Your task to perform on an android device: What's the weather today? Image 0: 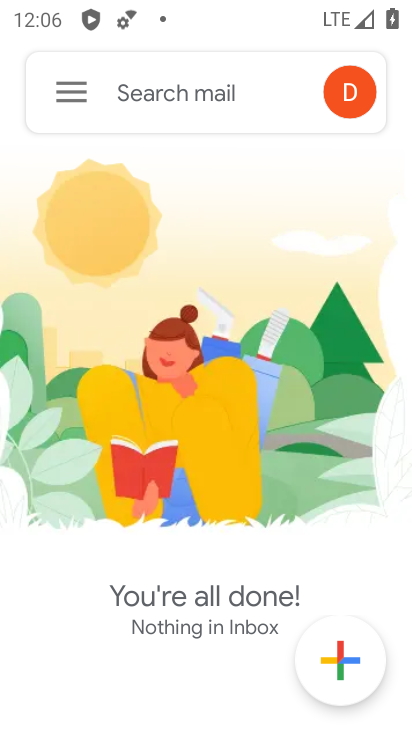
Step 0: press home button
Your task to perform on an android device: What's the weather today? Image 1: 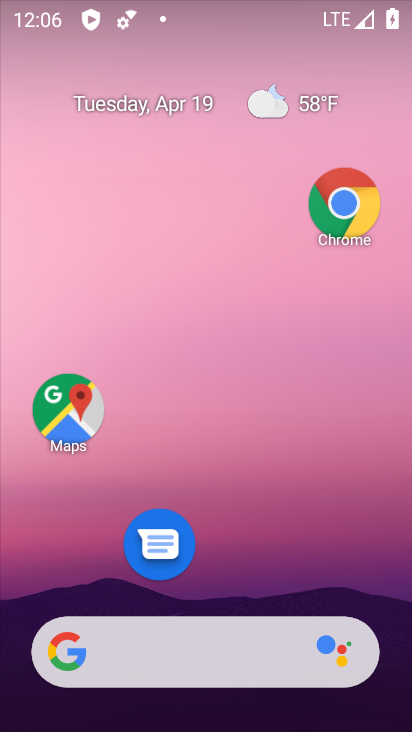
Step 1: drag from (224, 573) to (252, 38)
Your task to perform on an android device: What's the weather today? Image 2: 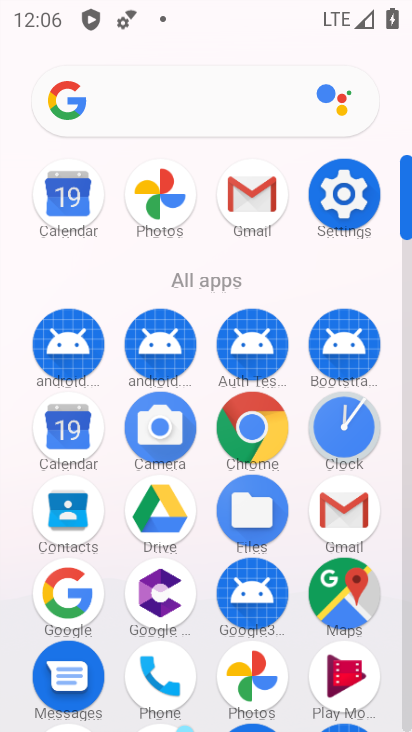
Step 2: click (248, 430)
Your task to perform on an android device: What's the weather today? Image 3: 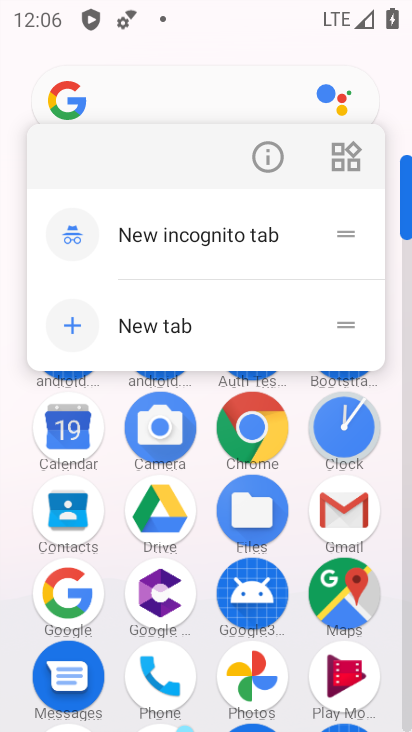
Step 3: click (262, 438)
Your task to perform on an android device: What's the weather today? Image 4: 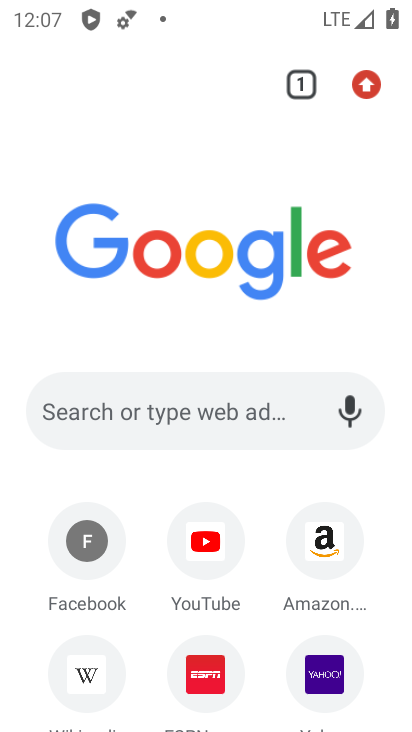
Step 4: click (362, 80)
Your task to perform on an android device: What's the weather today? Image 5: 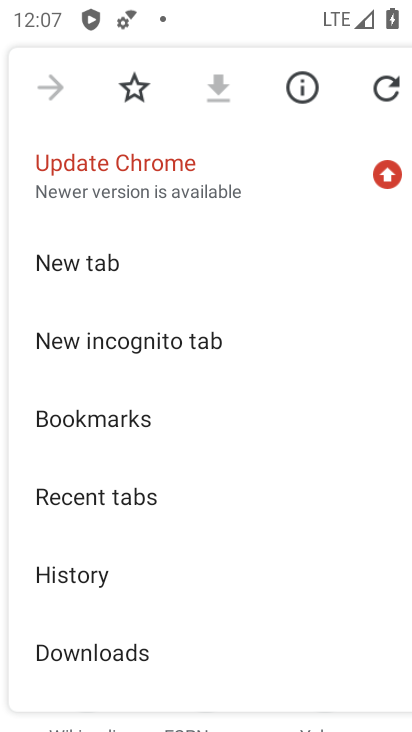
Step 5: click (98, 267)
Your task to perform on an android device: What's the weather today? Image 6: 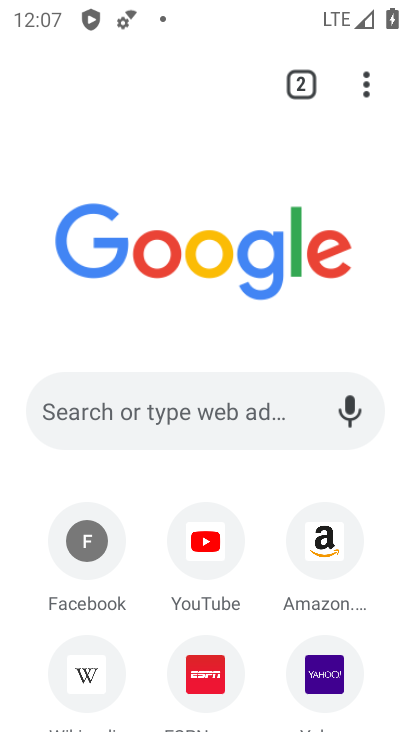
Step 6: click (124, 411)
Your task to perform on an android device: What's the weather today? Image 7: 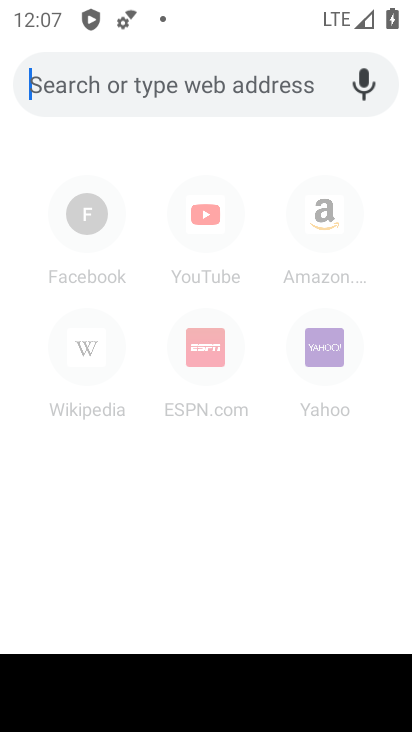
Step 7: type "What's the weather today?"
Your task to perform on an android device: What's the weather today? Image 8: 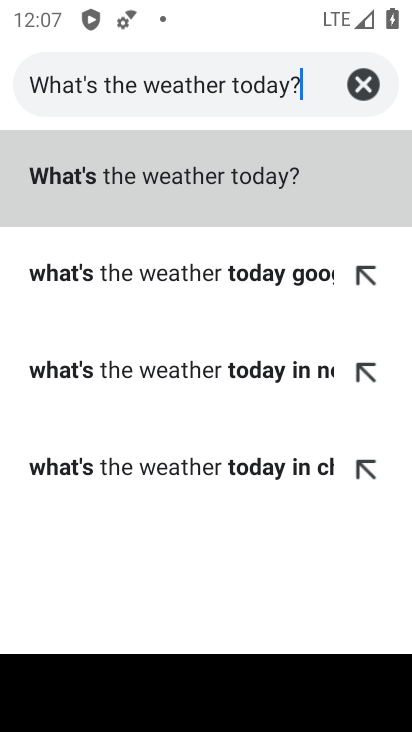
Step 8: click (277, 169)
Your task to perform on an android device: What's the weather today? Image 9: 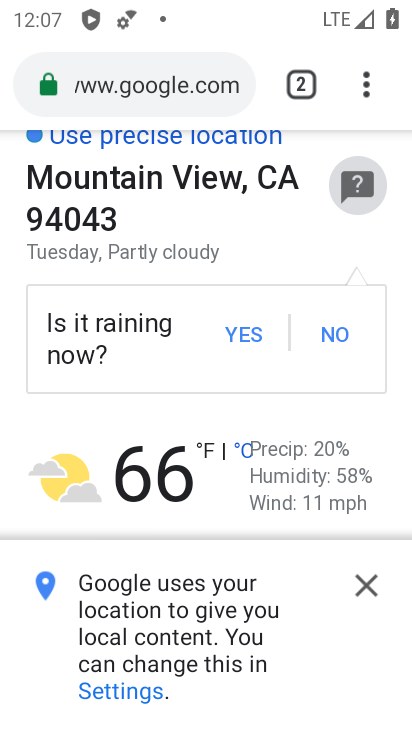
Step 9: click (364, 580)
Your task to perform on an android device: What's the weather today? Image 10: 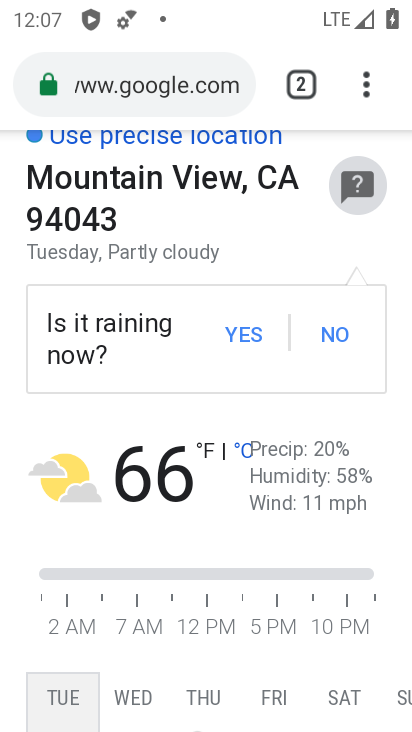
Step 10: task complete